Your task to perform on an android device: Go to battery settings Image 0: 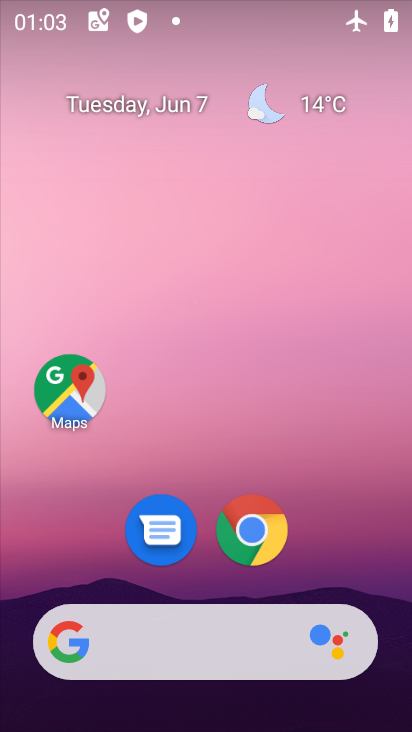
Step 0: drag from (323, 573) to (300, 241)
Your task to perform on an android device: Go to battery settings Image 1: 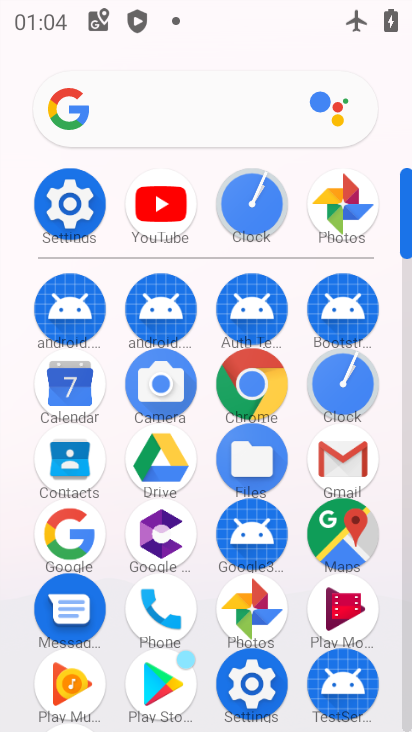
Step 1: click (71, 194)
Your task to perform on an android device: Go to battery settings Image 2: 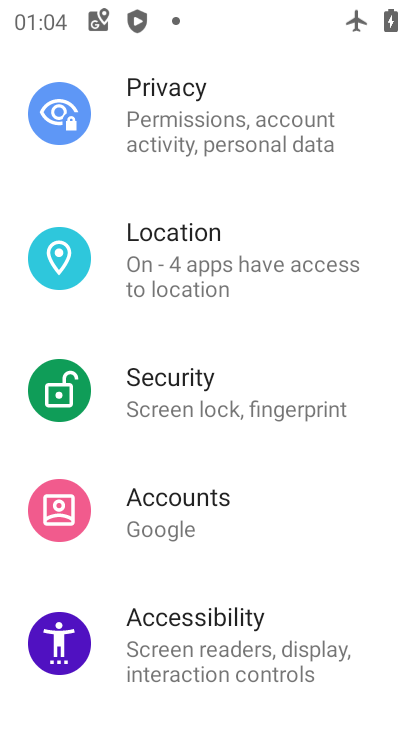
Step 2: drag from (214, 194) to (246, 623)
Your task to perform on an android device: Go to battery settings Image 3: 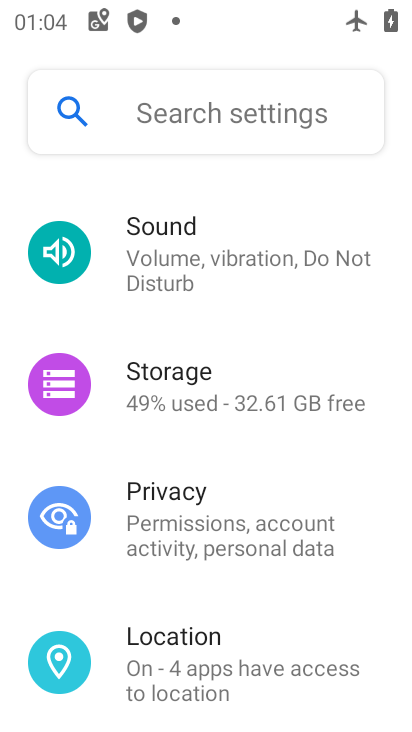
Step 3: drag from (233, 220) to (246, 585)
Your task to perform on an android device: Go to battery settings Image 4: 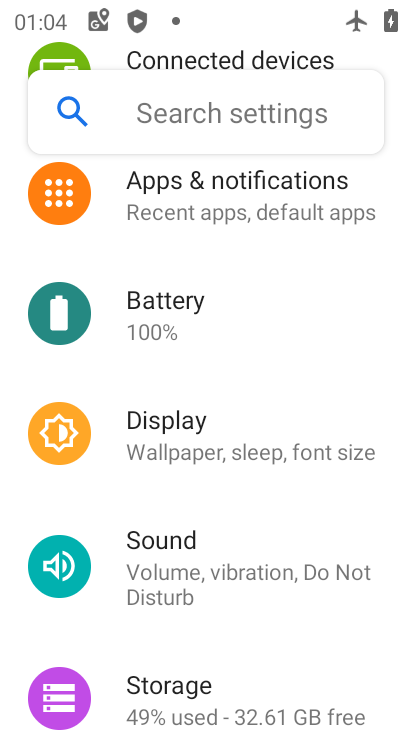
Step 4: click (204, 296)
Your task to perform on an android device: Go to battery settings Image 5: 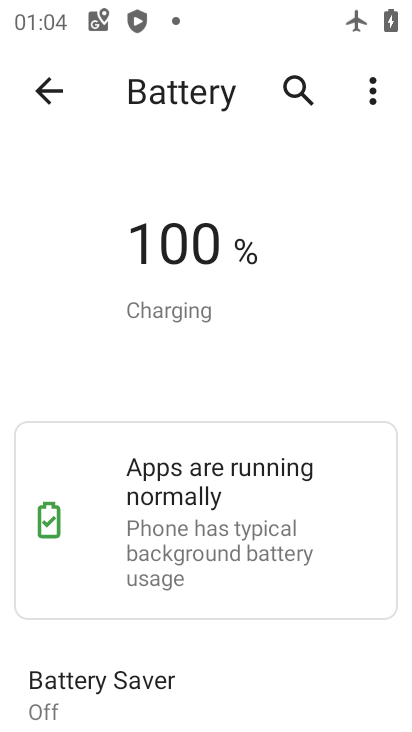
Step 5: task complete